Your task to perform on an android device: Open Android settings Image 0: 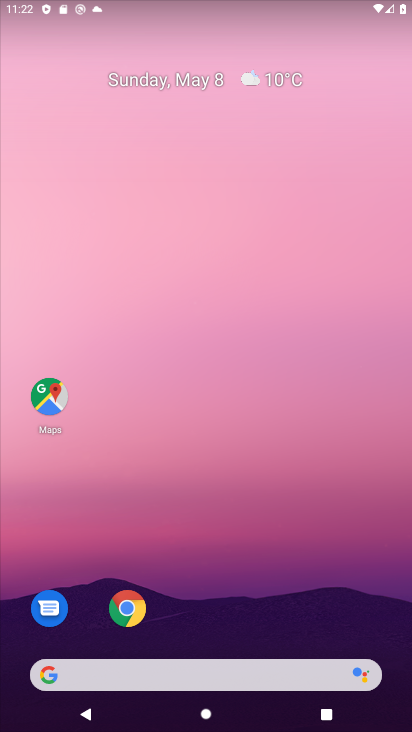
Step 0: drag from (231, 639) to (193, 149)
Your task to perform on an android device: Open Android settings Image 1: 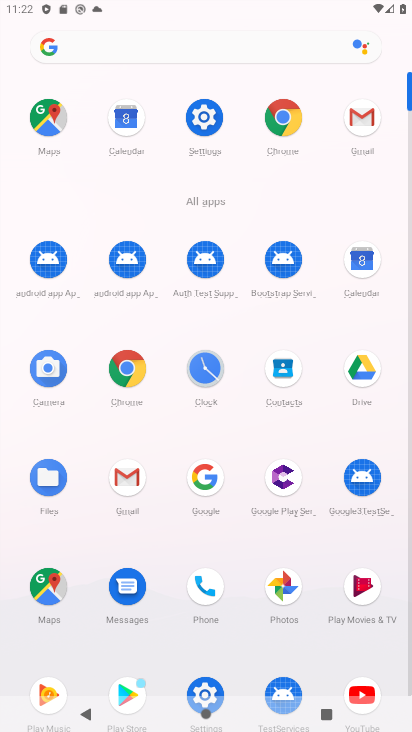
Step 1: click (207, 137)
Your task to perform on an android device: Open Android settings Image 2: 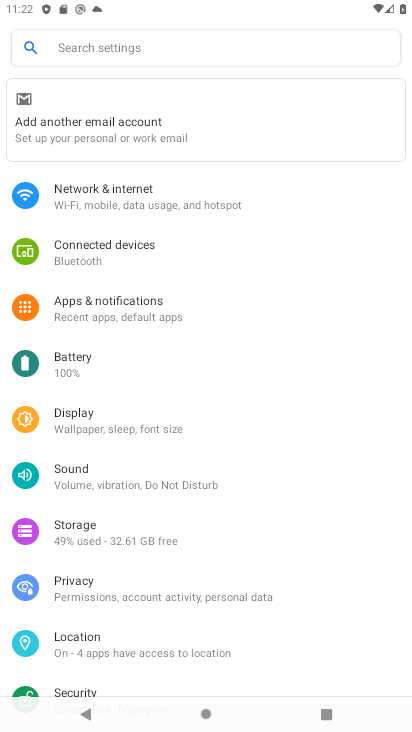
Step 2: drag from (212, 621) to (201, 213)
Your task to perform on an android device: Open Android settings Image 3: 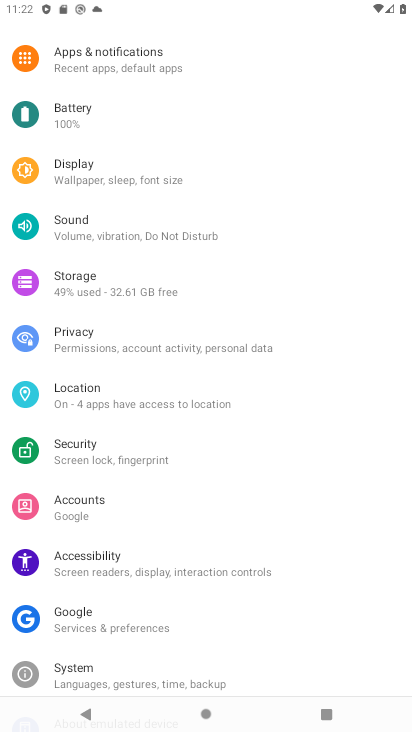
Step 3: drag from (172, 598) to (173, 397)
Your task to perform on an android device: Open Android settings Image 4: 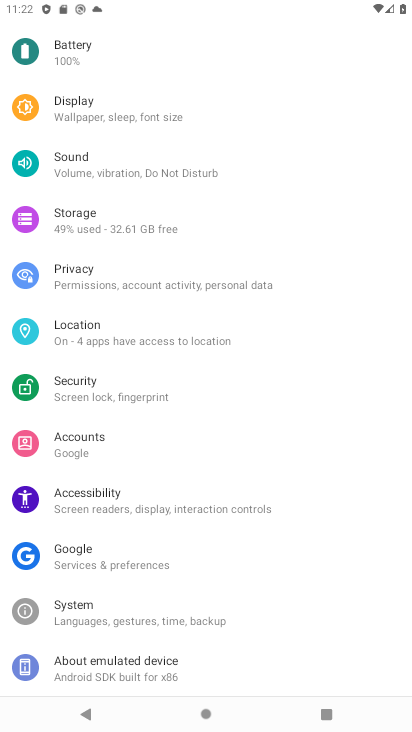
Step 4: click (149, 650)
Your task to perform on an android device: Open Android settings Image 5: 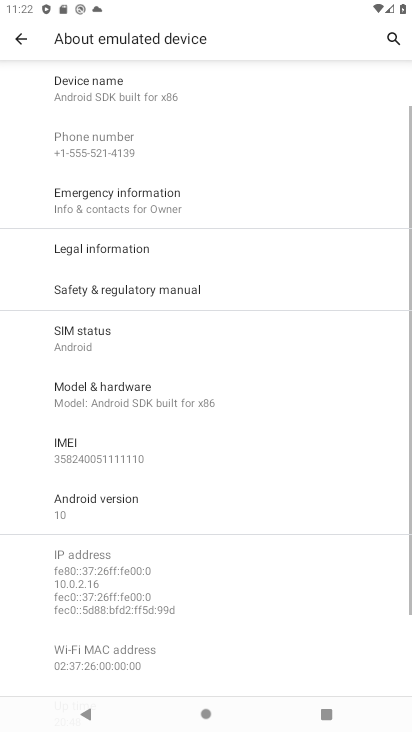
Step 5: task complete